Your task to perform on an android device: Open battery settings Image 0: 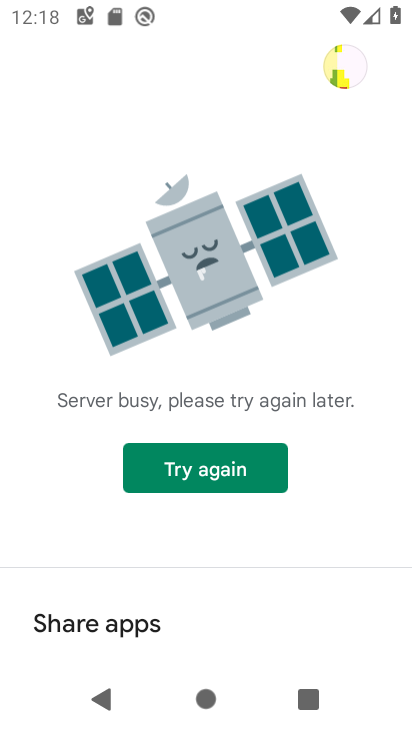
Step 0: press home button
Your task to perform on an android device: Open battery settings Image 1: 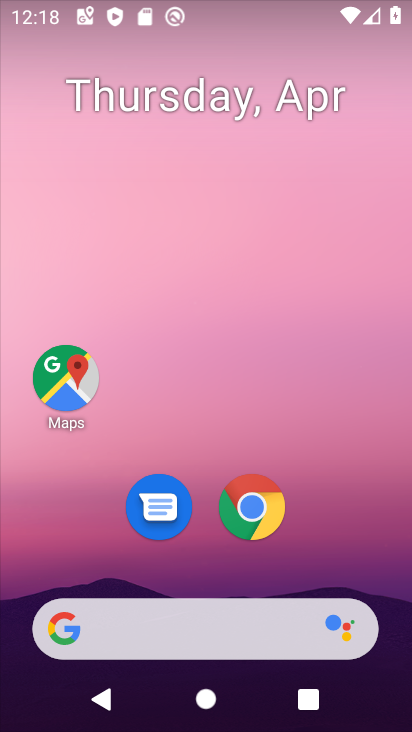
Step 1: drag from (346, 552) to (326, 36)
Your task to perform on an android device: Open battery settings Image 2: 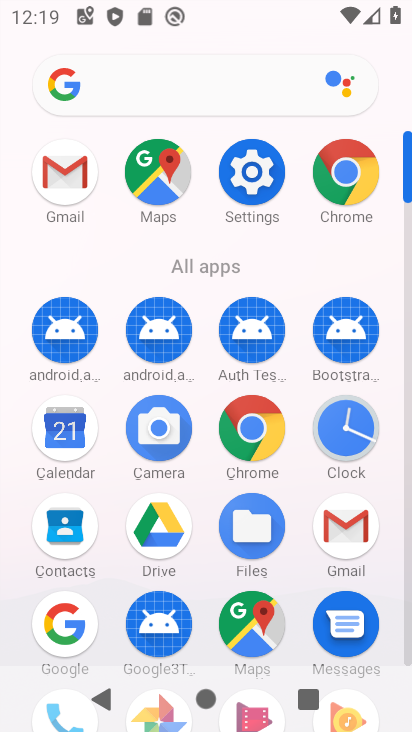
Step 2: click (254, 172)
Your task to perform on an android device: Open battery settings Image 3: 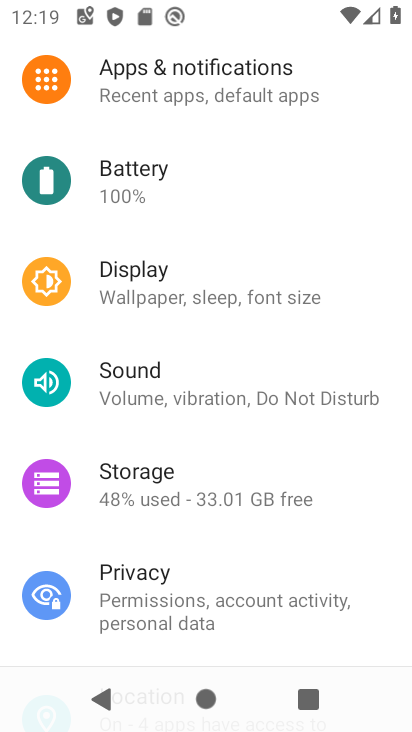
Step 3: click (158, 168)
Your task to perform on an android device: Open battery settings Image 4: 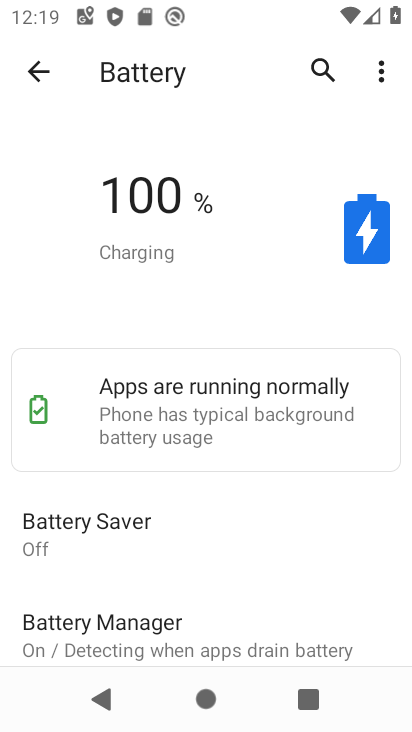
Step 4: task complete